Your task to perform on an android device: toggle show notifications on the lock screen Image 0: 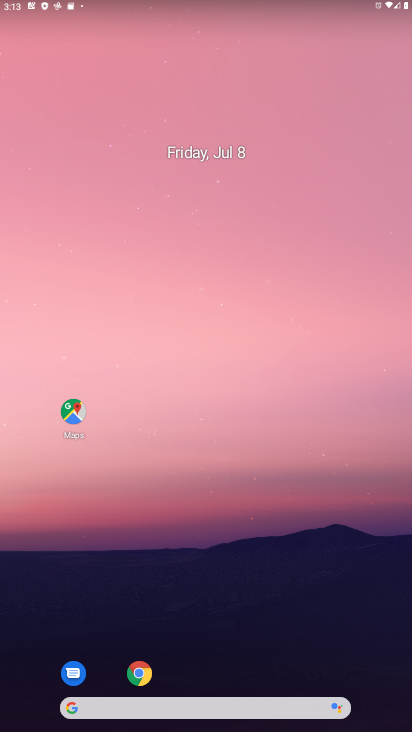
Step 0: drag from (385, 690) to (369, 132)
Your task to perform on an android device: toggle show notifications on the lock screen Image 1: 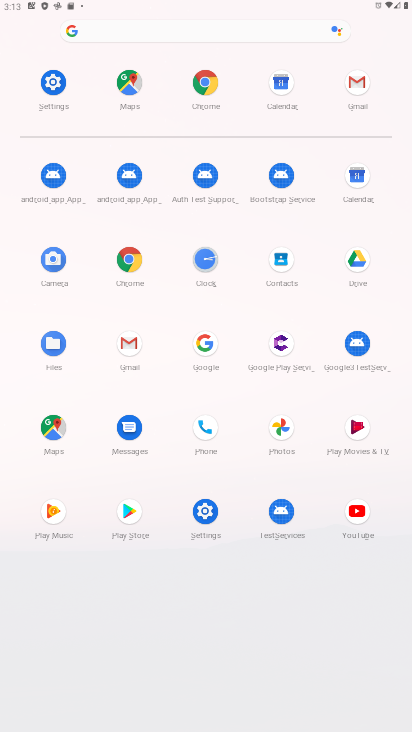
Step 1: click (52, 101)
Your task to perform on an android device: toggle show notifications on the lock screen Image 2: 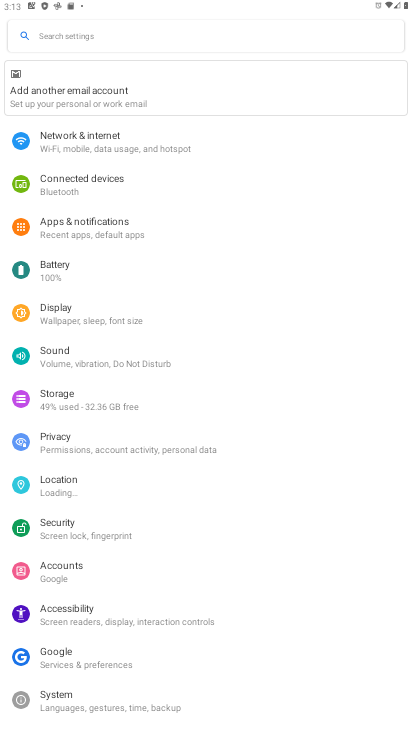
Step 2: click (71, 229)
Your task to perform on an android device: toggle show notifications on the lock screen Image 3: 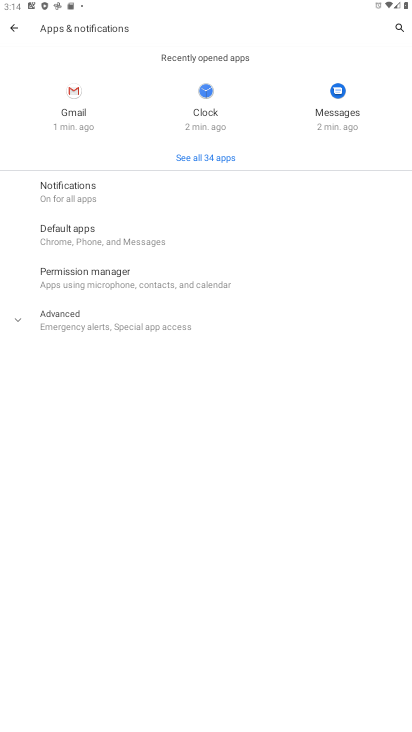
Step 3: click (79, 194)
Your task to perform on an android device: toggle show notifications on the lock screen Image 4: 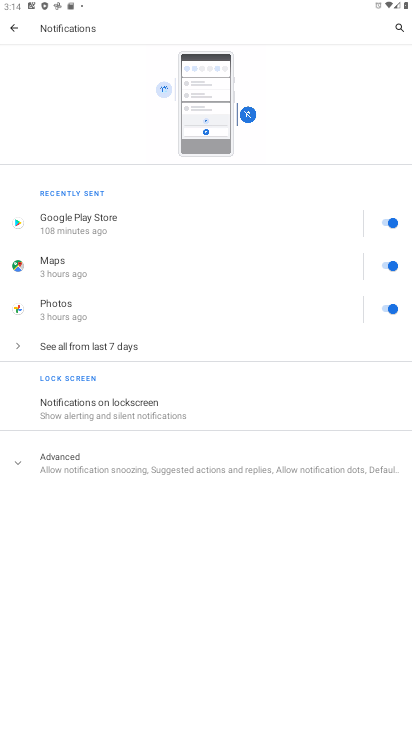
Step 4: click (65, 404)
Your task to perform on an android device: toggle show notifications on the lock screen Image 5: 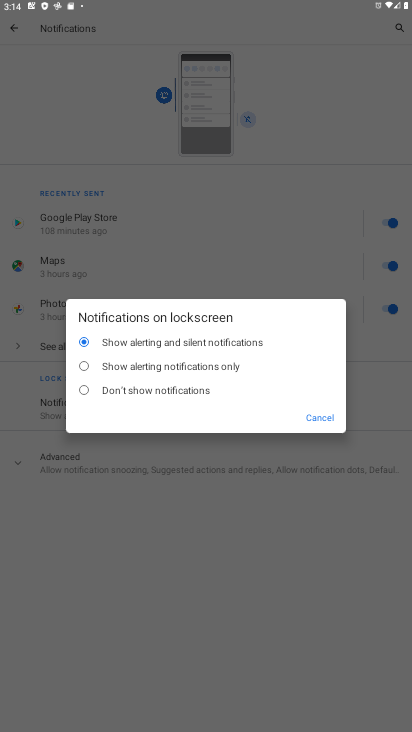
Step 5: click (85, 365)
Your task to perform on an android device: toggle show notifications on the lock screen Image 6: 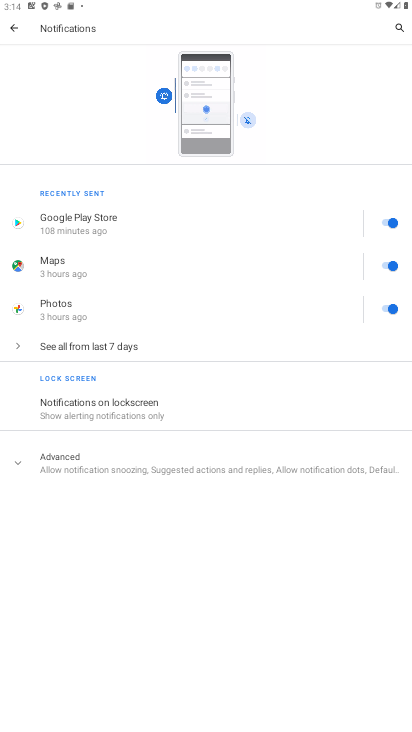
Step 6: task complete